Your task to perform on an android device: add a contact Image 0: 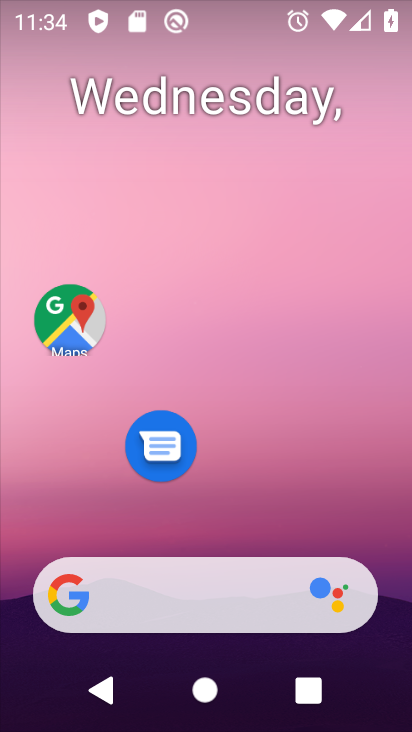
Step 0: drag from (229, 484) to (74, 80)
Your task to perform on an android device: add a contact Image 1: 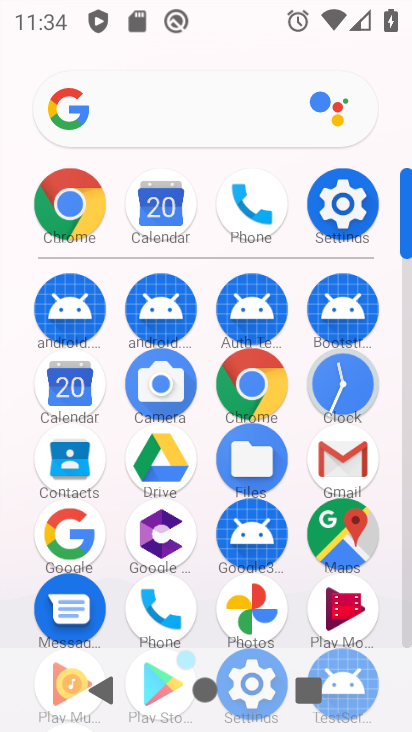
Step 1: click (75, 474)
Your task to perform on an android device: add a contact Image 2: 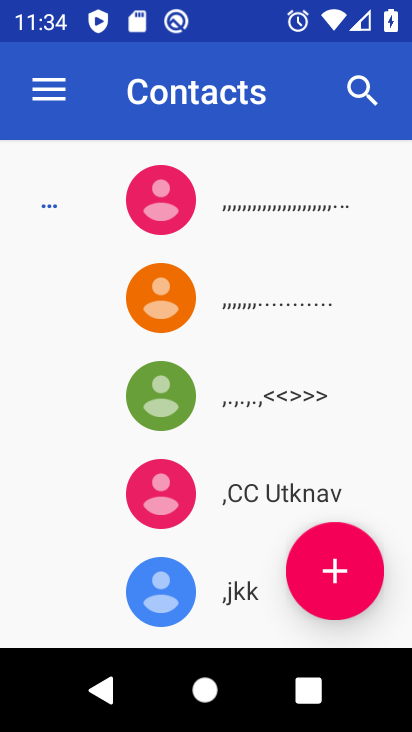
Step 2: click (352, 587)
Your task to perform on an android device: add a contact Image 3: 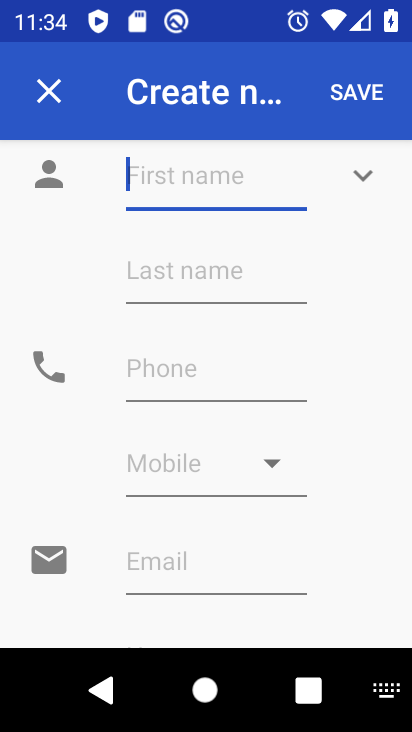
Step 3: type ",lagap UUU"
Your task to perform on an android device: add a contact Image 4: 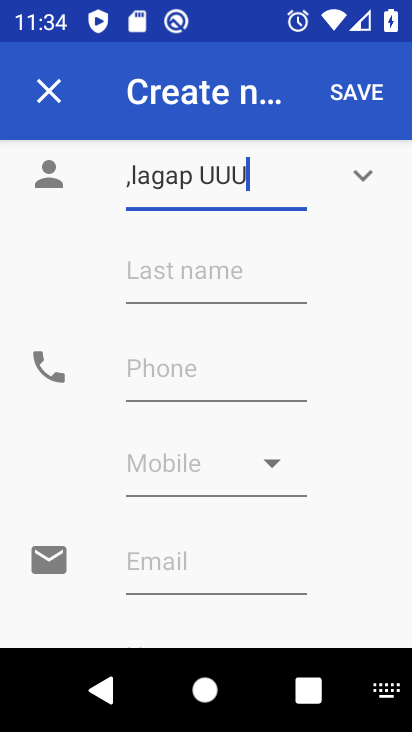
Step 4: click (163, 374)
Your task to perform on an android device: add a contact Image 5: 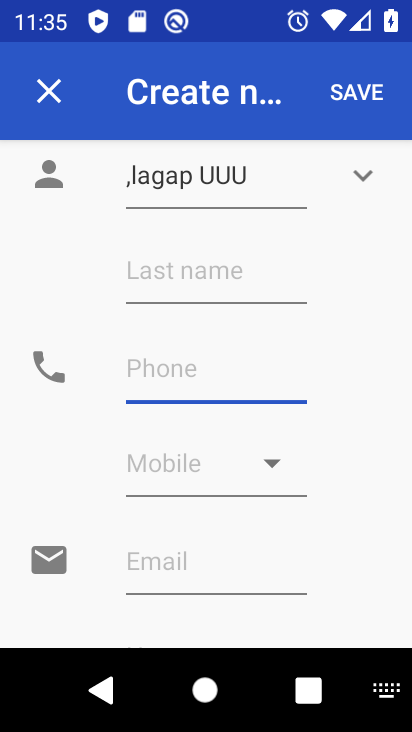
Step 5: type "6754286212"
Your task to perform on an android device: add a contact Image 6: 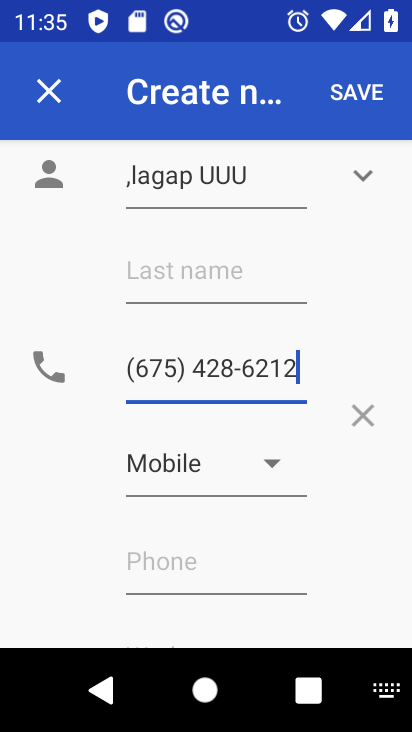
Step 6: click (360, 94)
Your task to perform on an android device: add a contact Image 7: 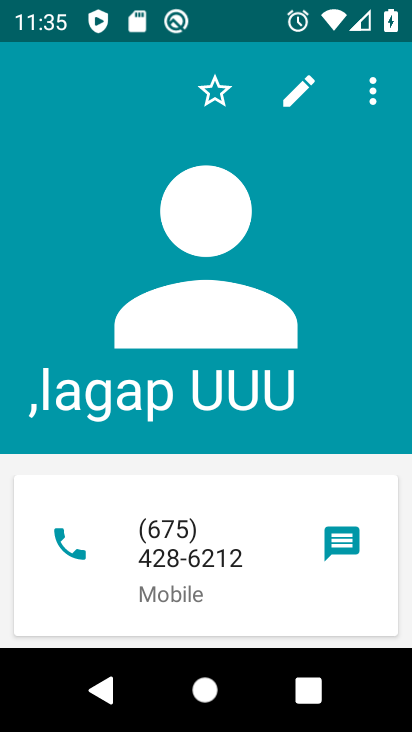
Step 7: task complete